Your task to perform on an android device: toggle javascript in the chrome app Image 0: 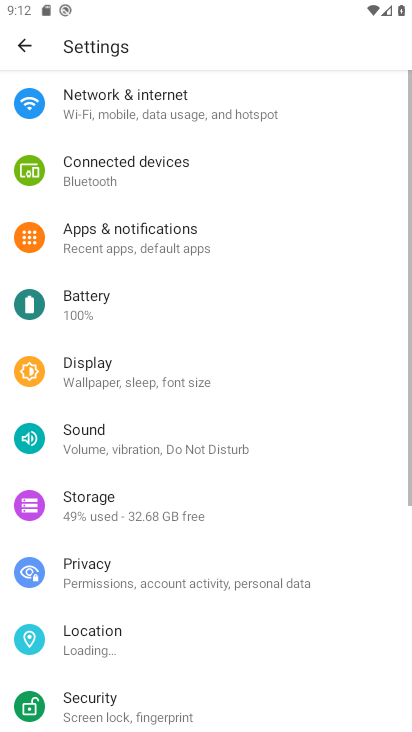
Step 0: press home button
Your task to perform on an android device: toggle javascript in the chrome app Image 1: 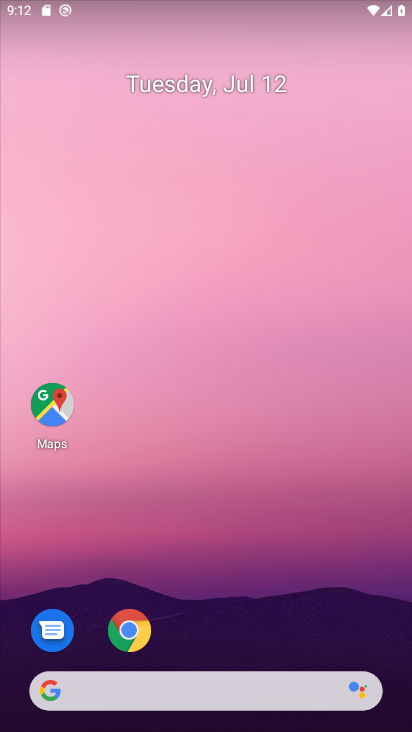
Step 1: drag from (234, 630) to (319, 114)
Your task to perform on an android device: toggle javascript in the chrome app Image 2: 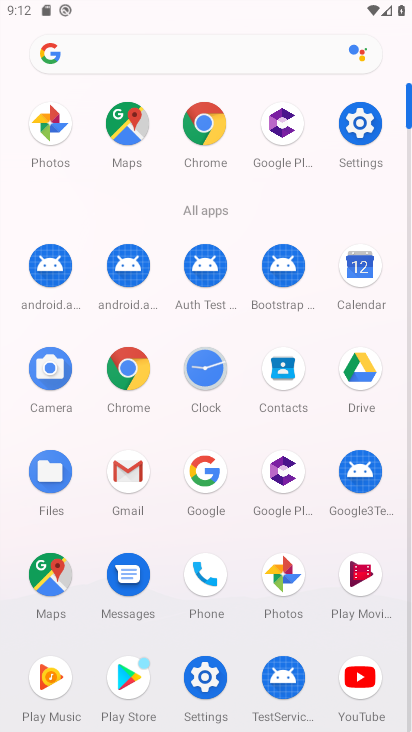
Step 2: click (128, 376)
Your task to perform on an android device: toggle javascript in the chrome app Image 3: 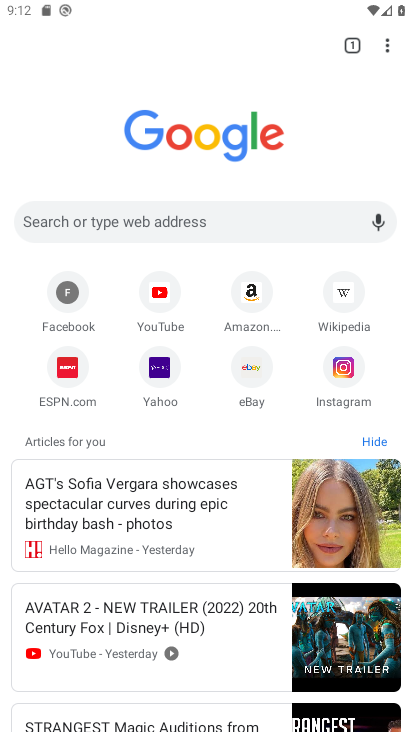
Step 3: drag from (390, 52) to (263, 380)
Your task to perform on an android device: toggle javascript in the chrome app Image 4: 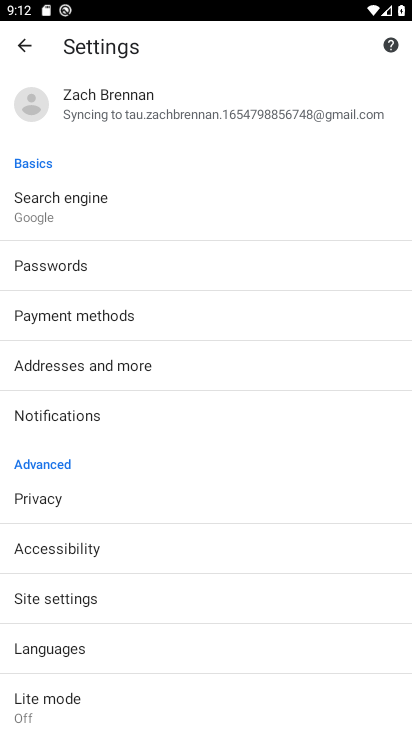
Step 4: click (90, 604)
Your task to perform on an android device: toggle javascript in the chrome app Image 5: 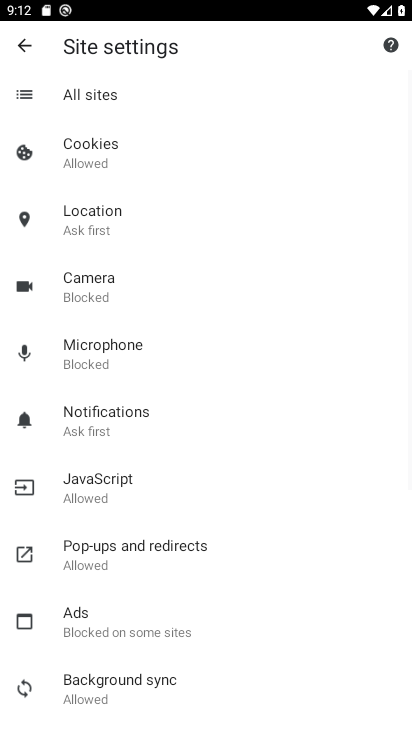
Step 5: click (112, 502)
Your task to perform on an android device: toggle javascript in the chrome app Image 6: 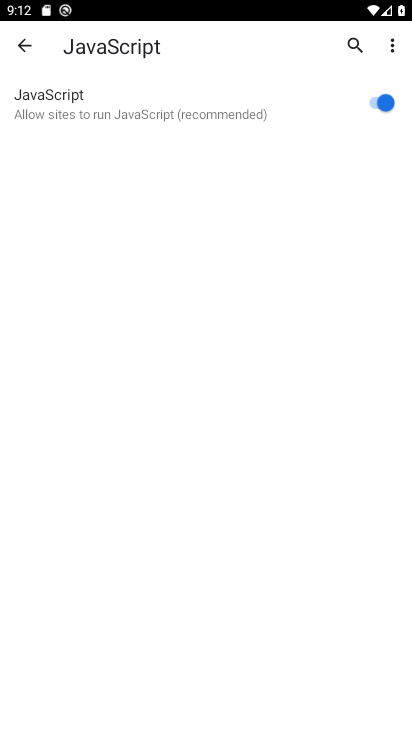
Step 6: click (378, 102)
Your task to perform on an android device: toggle javascript in the chrome app Image 7: 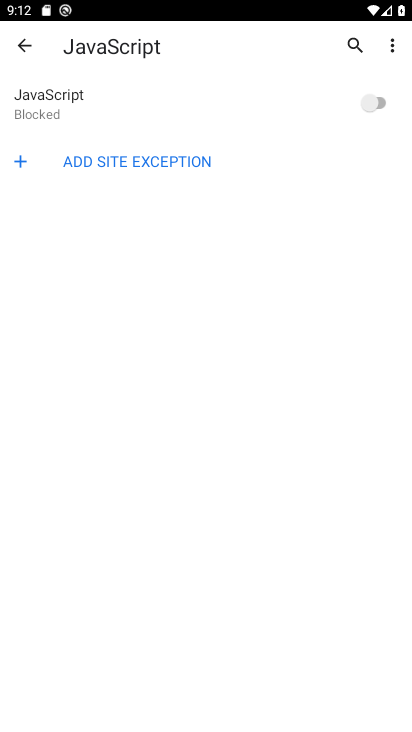
Step 7: task complete